Your task to perform on an android device: Open Youtube and go to the subscriptions tab Image 0: 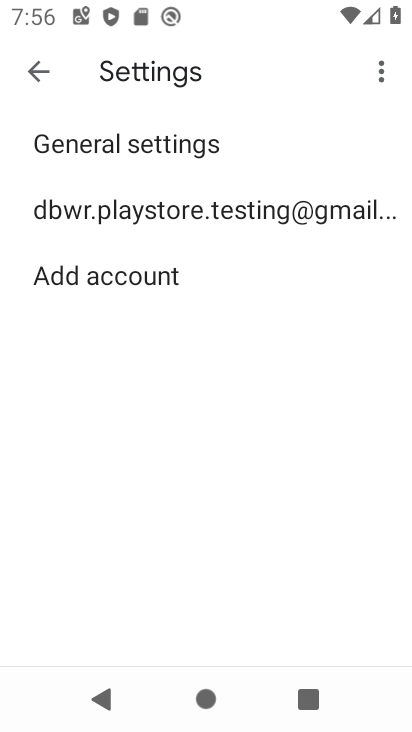
Step 0: press home button
Your task to perform on an android device: Open Youtube and go to the subscriptions tab Image 1: 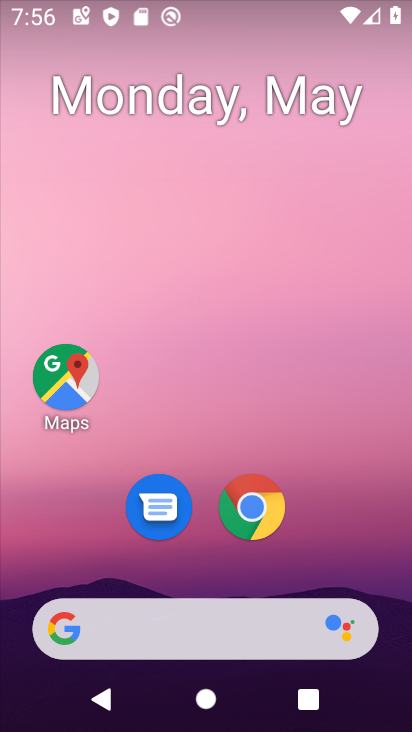
Step 1: drag from (228, 441) to (239, 115)
Your task to perform on an android device: Open Youtube and go to the subscriptions tab Image 2: 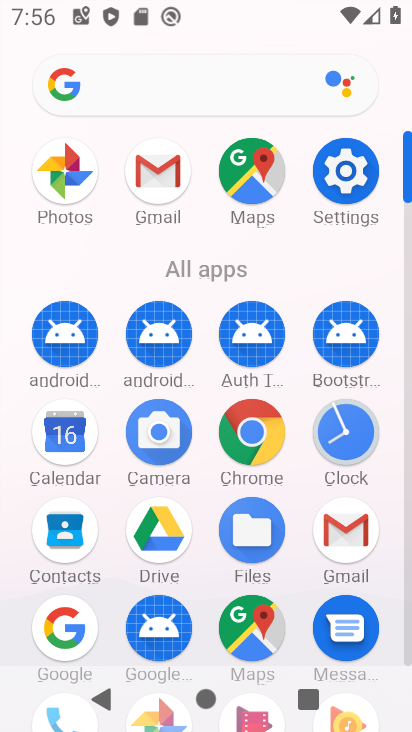
Step 2: drag from (209, 576) to (240, 163)
Your task to perform on an android device: Open Youtube and go to the subscriptions tab Image 3: 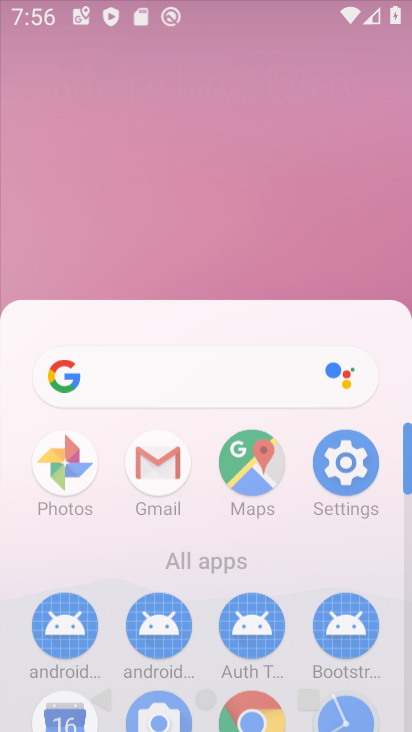
Step 3: drag from (215, 448) to (217, 217)
Your task to perform on an android device: Open Youtube and go to the subscriptions tab Image 4: 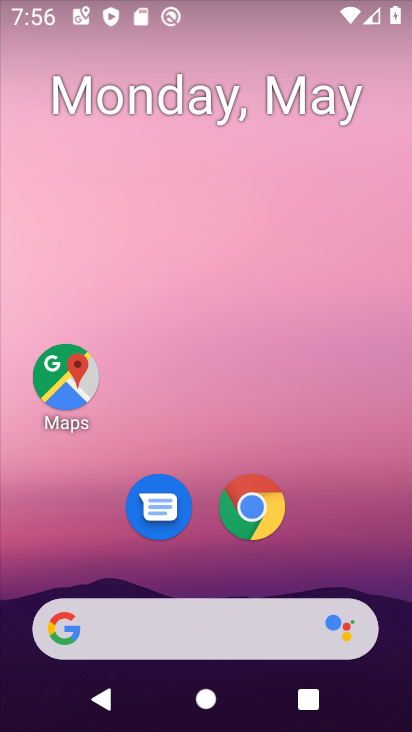
Step 4: drag from (209, 556) to (210, 147)
Your task to perform on an android device: Open Youtube and go to the subscriptions tab Image 5: 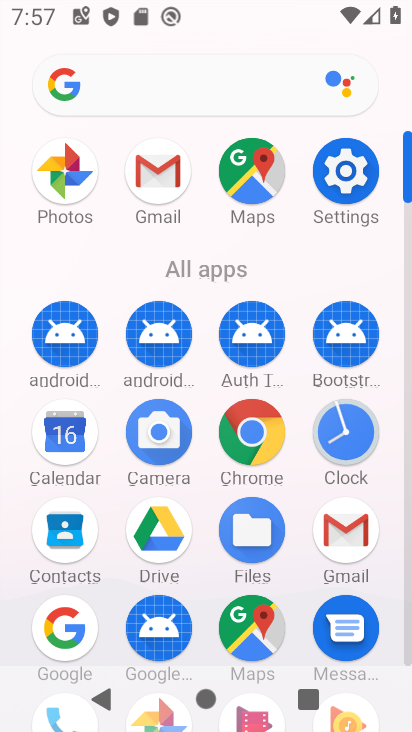
Step 5: drag from (201, 496) to (218, 162)
Your task to perform on an android device: Open Youtube and go to the subscriptions tab Image 6: 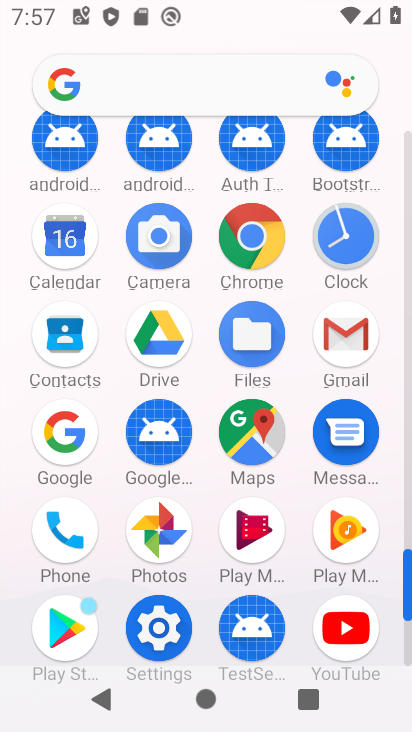
Step 6: click (342, 620)
Your task to perform on an android device: Open Youtube and go to the subscriptions tab Image 7: 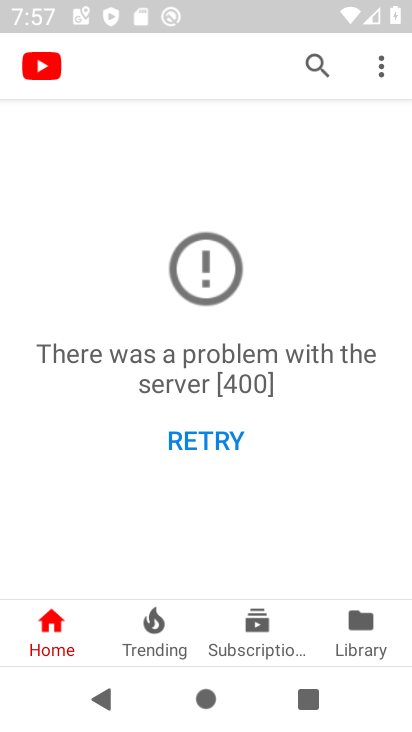
Step 7: click (255, 625)
Your task to perform on an android device: Open Youtube and go to the subscriptions tab Image 8: 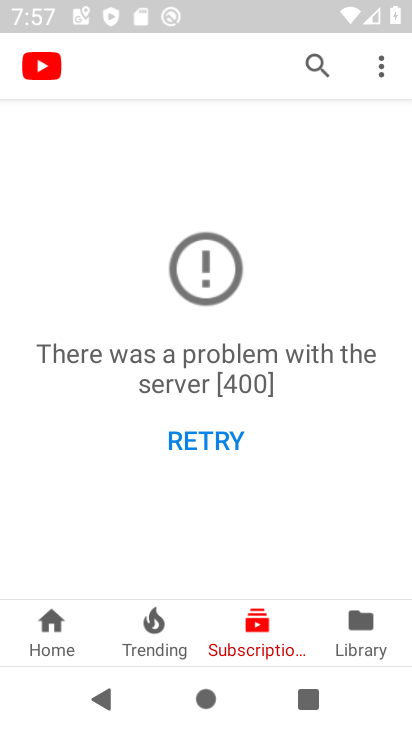
Step 8: task complete